Your task to perform on an android device: toggle improve location accuracy Image 0: 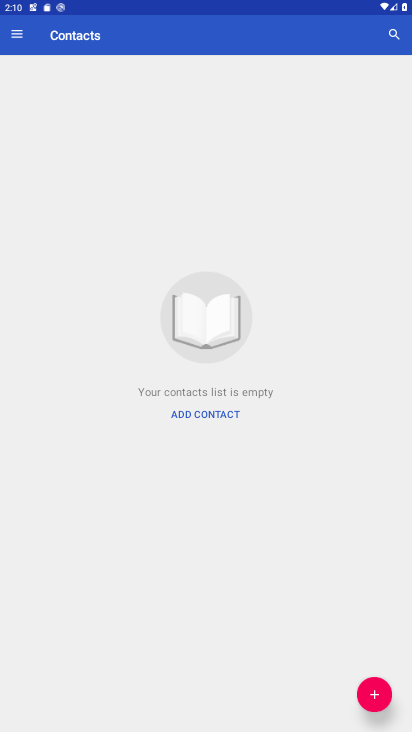
Step 0: press home button
Your task to perform on an android device: toggle improve location accuracy Image 1: 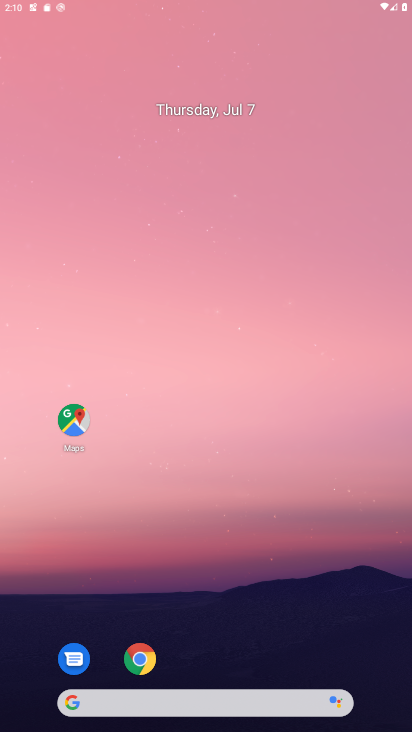
Step 1: drag from (230, 526) to (238, 172)
Your task to perform on an android device: toggle improve location accuracy Image 2: 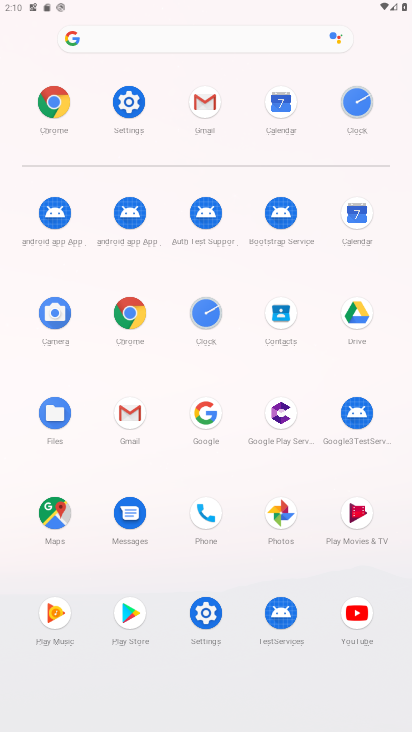
Step 2: click (135, 410)
Your task to perform on an android device: toggle improve location accuracy Image 3: 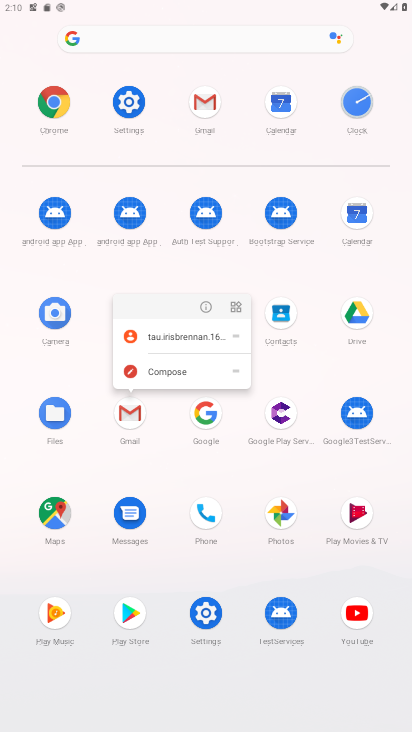
Step 3: click (198, 308)
Your task to perform on an android device: toggle improve location accuracy Image 4: 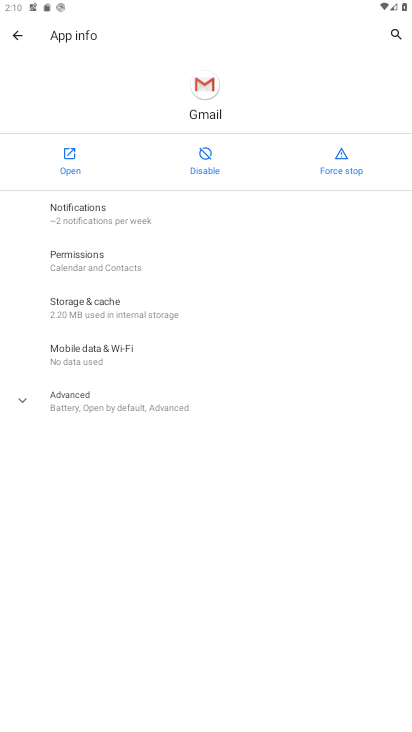
Step 4: click (69, 161)
Your task to perform on an android device: toggle improve location accuracy Image 5: 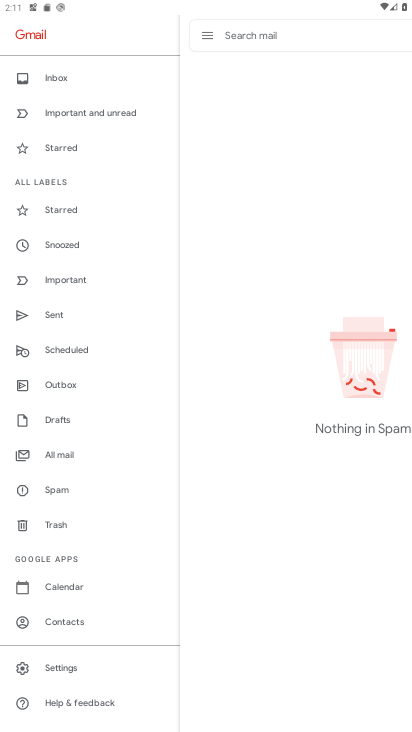
Step 5: drag from (109, 513) to (149, 98)
Your task to perform on an android device: toggle improve location accuracy Image 6: 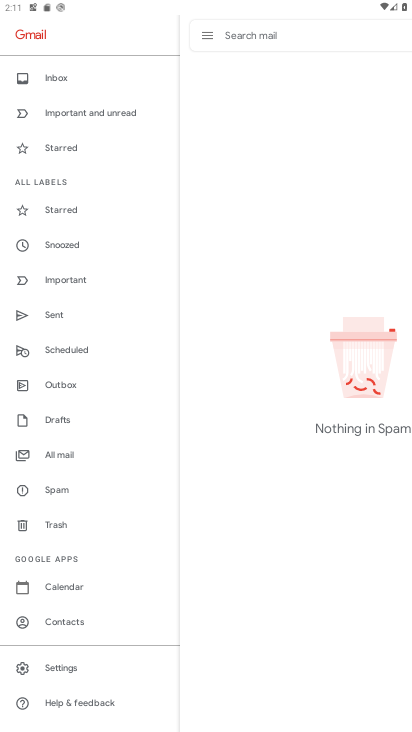
Step 6: press home button
Your task to perform on an android device: toggle improve location accuracy Image 7: 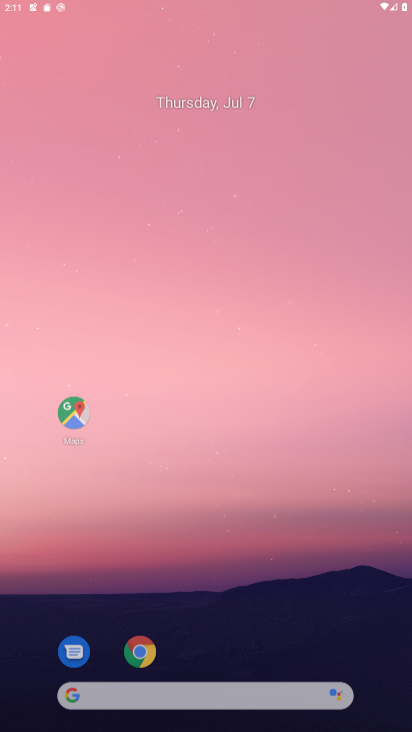
Step 7: drag from (118, 467) to (177, 93)
Your task to perform on an android device: toggle improve location accuracy Image 8: 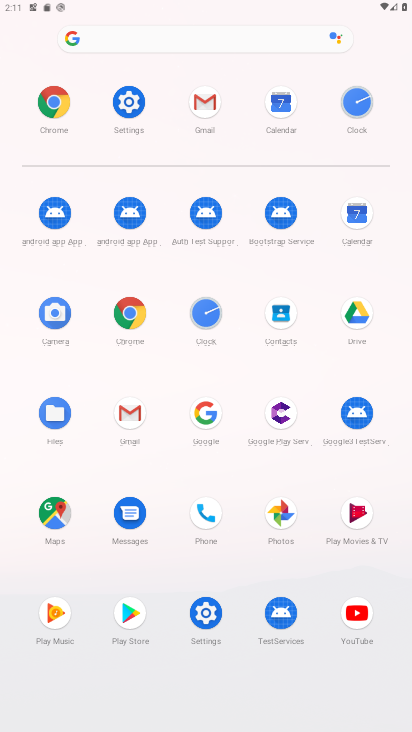
Step 8: click (123, 106)
Your task to perform on an android device: toggle improve location accuracy Image 9: 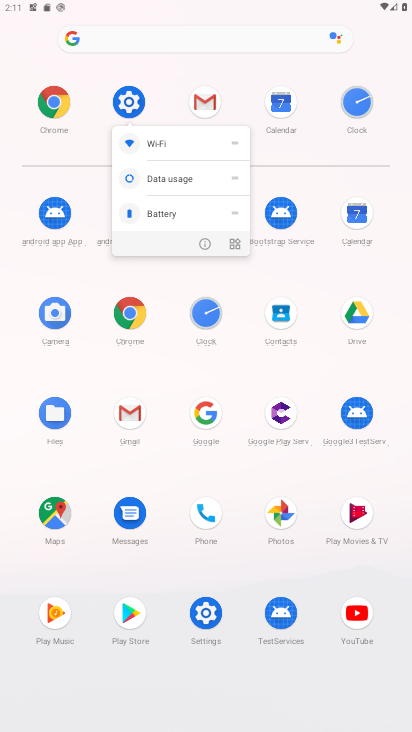
Step 9: click (200, 243)
Your task to perform on an android device: toggle improve location accuracy Image 10: 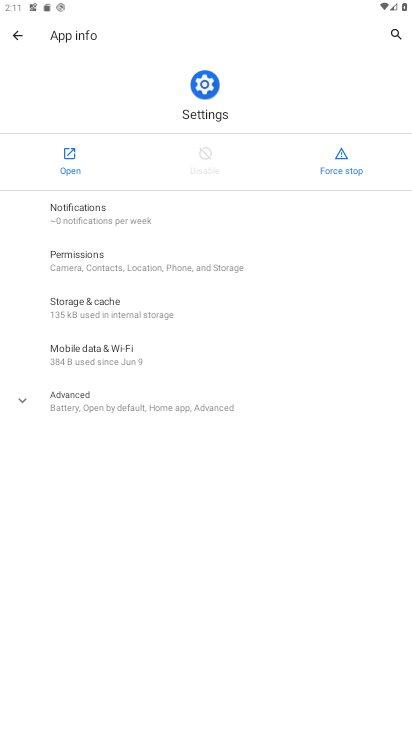
Step 10: click (69, 162)
Your task to perform on an android device: toggle improve location accuracy Image 11: 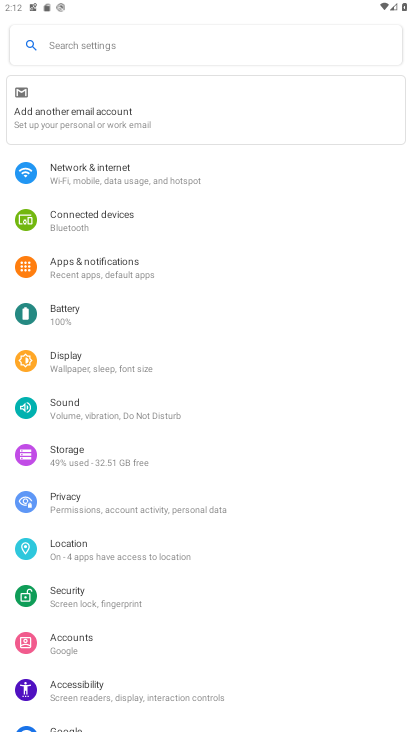
Step 11: drag from (146, 622) to (254, 184)
Your task to perform on an android device: toggle improve location accuracy Image 12: 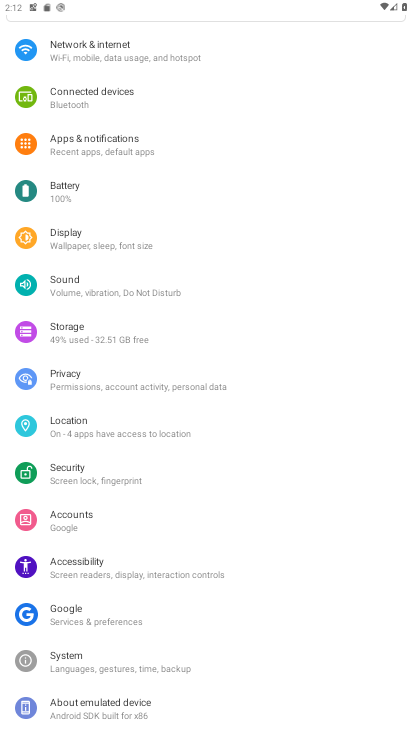
Step 12: click (132, 430)
Your task to perform on an android device: toggle improve location accuracy Image 13: 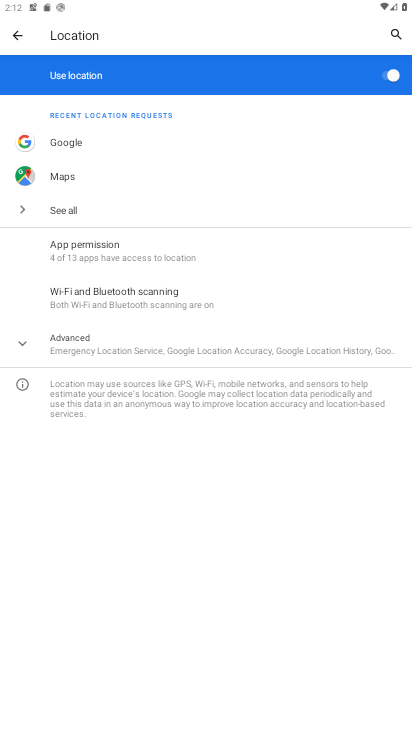
Step 13: click (92, 349)
Your task to perform on an android device: toggle improve location accuracy Image 14: 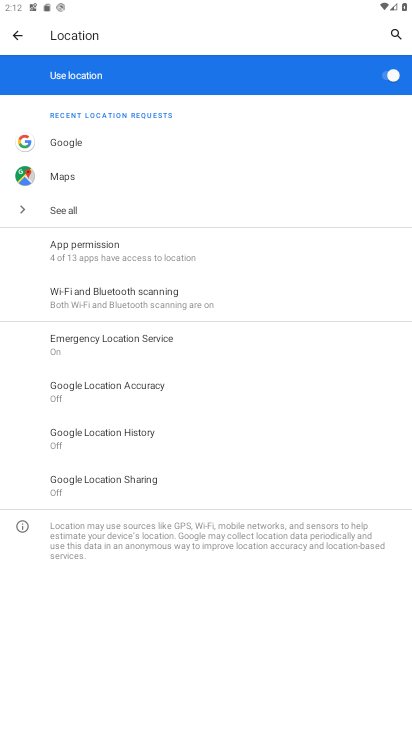
Step 14: click (125, 396)
Your task to perform on an android device: toggle improve location accuracy Image 15: 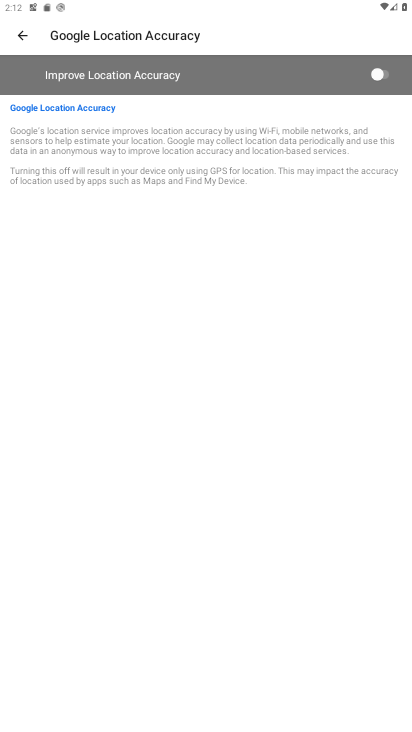
Step 15: drag from (223, 490) to (284, 197)
Your task to perform on an android device: toggle improve location accuracy Image 16: 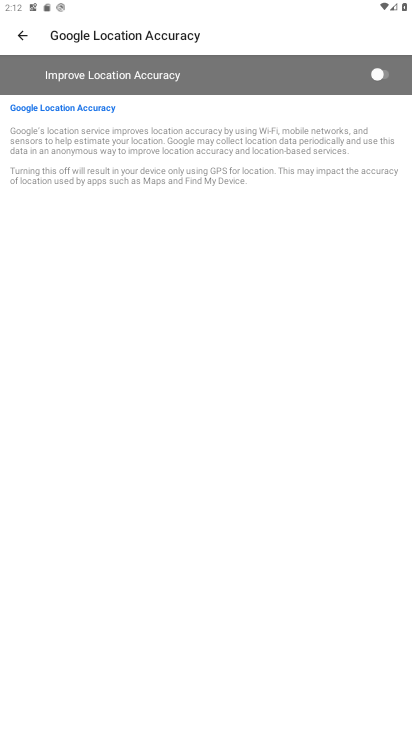
Step 16: drag from (200, 550) to (240, 193)
Your task to perform on an android device: toggle improve location accuracy Image 17: 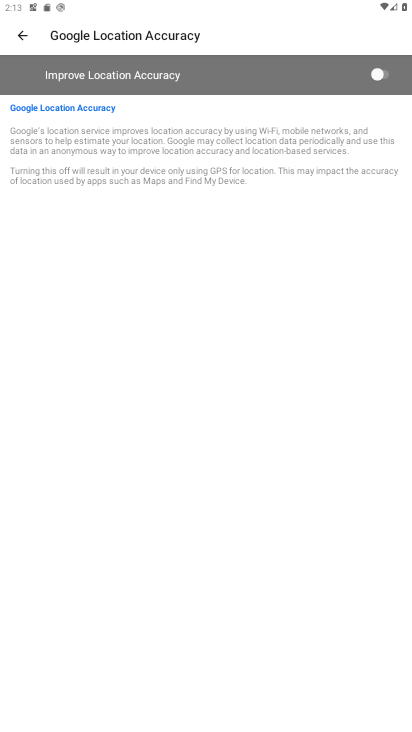
Step 17: click (363, 74)
Your task to perform on an android device: toggle improve location accuracy Image 18: 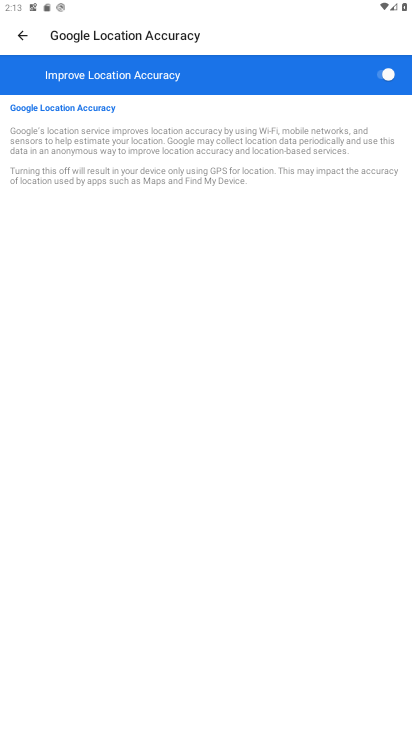
Step 18: task complete